Your task to perform on an android device: clear history in the chrome app Image 0: 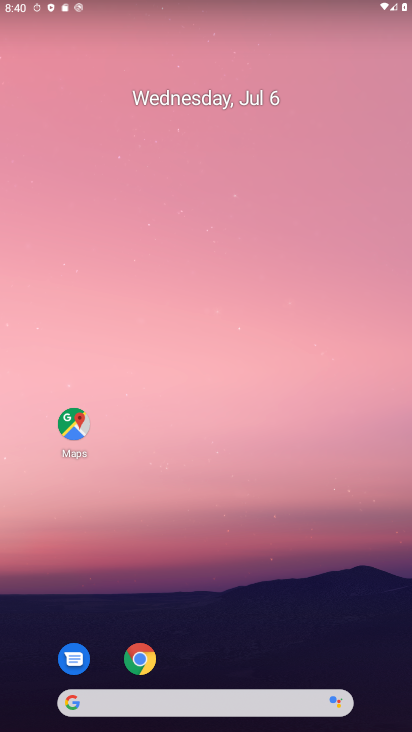
Step 0: drag from (341, 637) to (350, 164)
Your task to perform on an android device: clear history in the chrome app Image 1: 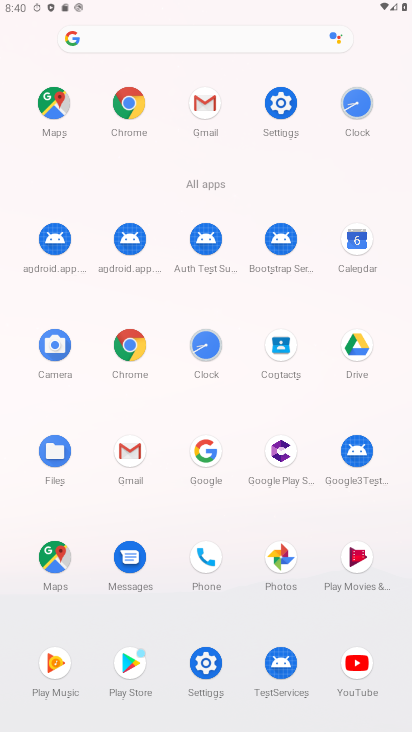
Step 1: click (143, 355)
Your task to perform on an android device: clear history in the chrome app Image 2: 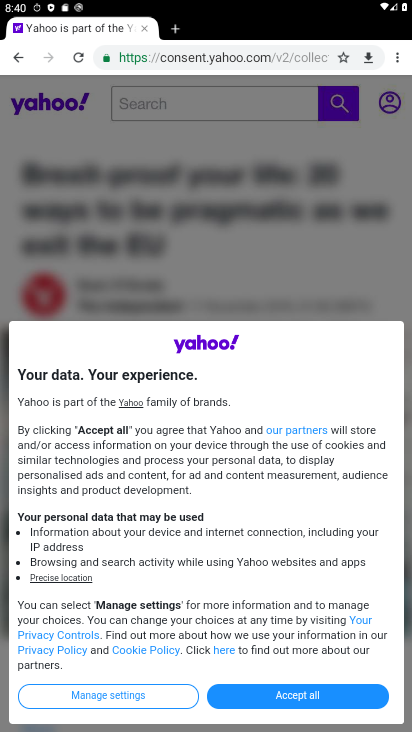
Step 2: click (398, 54)
Your task to perform on an android device: clear history in the chrome app Image 3: 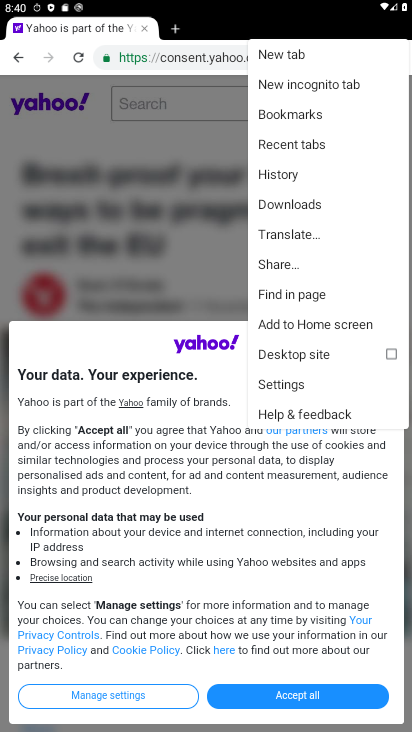
Step 3: click (315, 175)
Your task to perform on an android device: clear history in the chrome app Image 4: 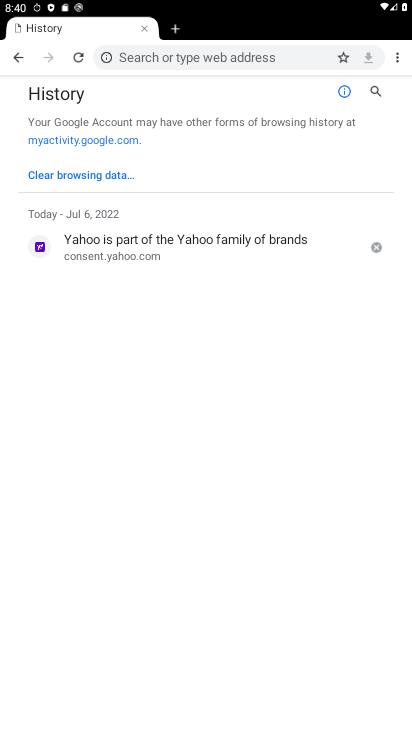
Step 4: click (103, 177)
Your task to perform on an android device: clear history in the chrome app Image 5: 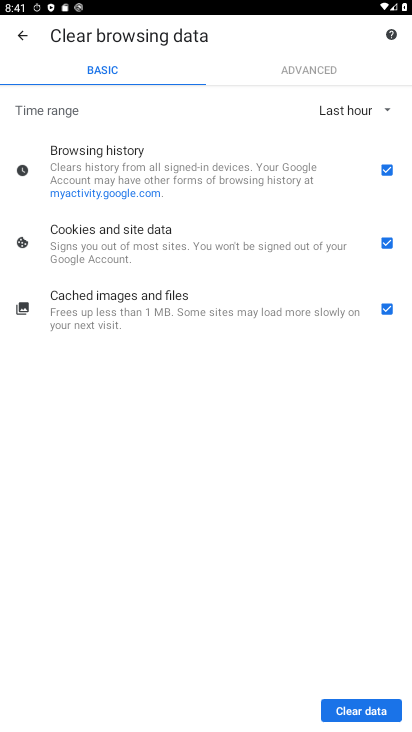
Step 5: click (355, 709)
Your task to perform on an android device: clear history in the chrome app Image 6: 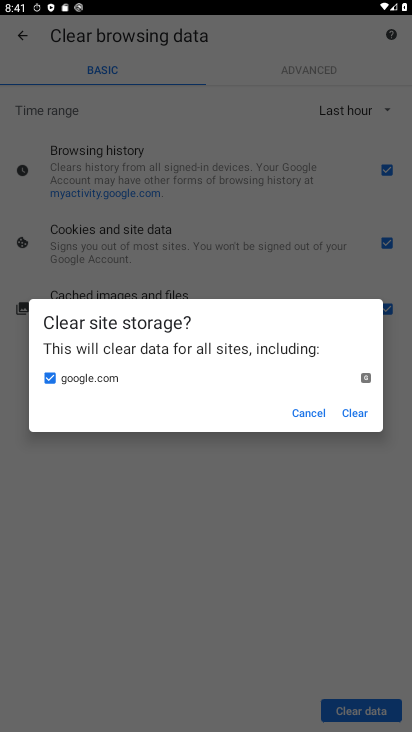
Step 6: click (353, 415)
Your task to perform on an android device: clear history in the chrome app Image 7: 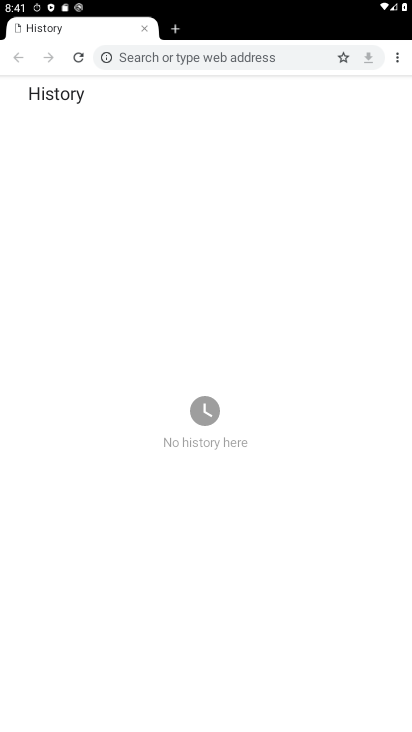
Step 7: task complete